Your task to perform on an android device: turn off priority inbox in the gmail app Image 0: 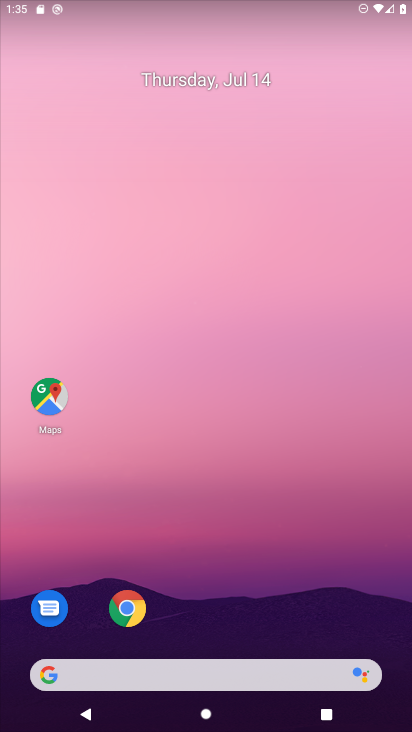
Step 0: drag from (239, 728) to (205, 98)
Your task to perform on an android device: turn off priority inbox in the gmail app Image 1: 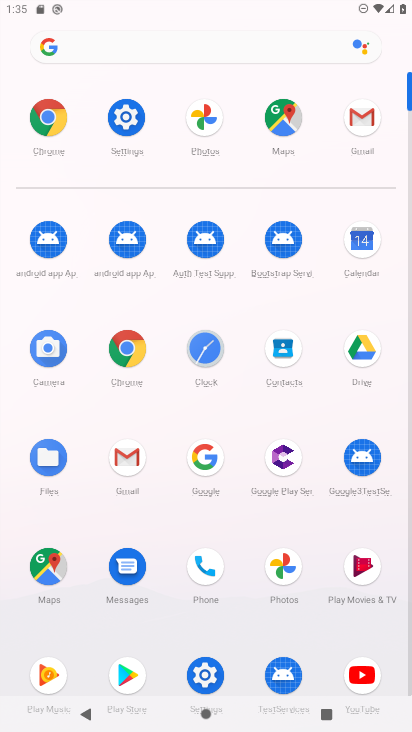
Step 1: click (128, 461)
Your task to perform on an android device: turn off priority inbox in the gmail app Image 2: 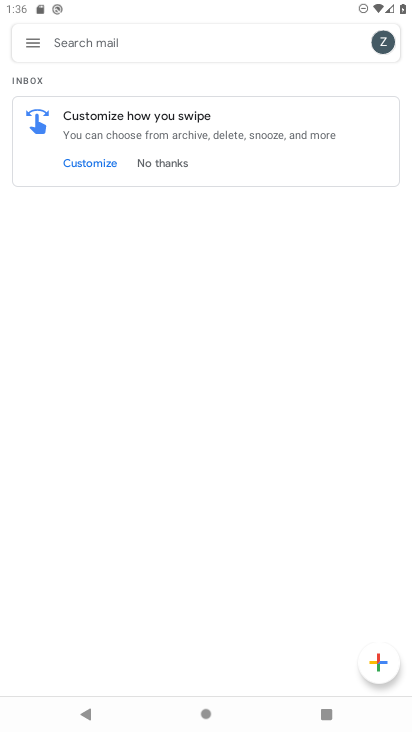
Step 2: click (35, 43)
Your task to perform on an android device: turn off priority inbox in the gmail app Image 3: 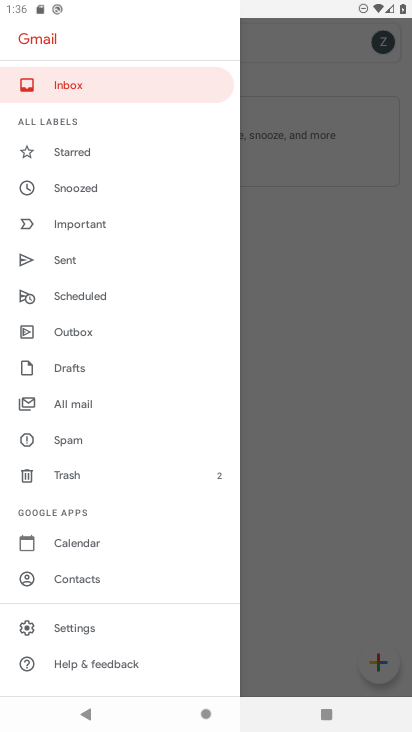
Step 3: click (73, 624)
Your task to perform on an android device: turn off priority inbox in the gmail app Image 4: 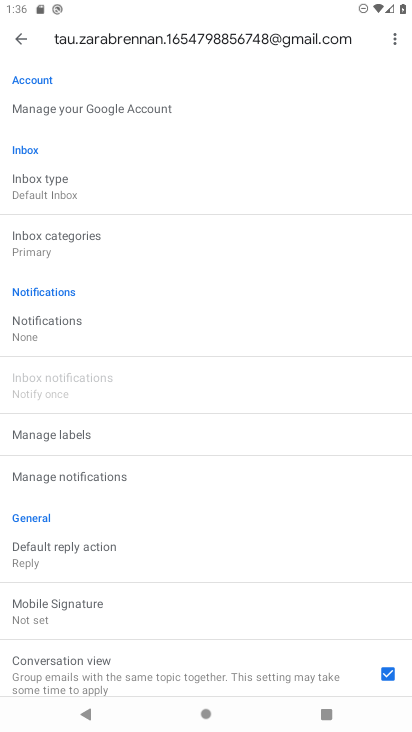
Step 4: task complete